Your task to perform on an android device: check the backup settings in the google photos Image 0: 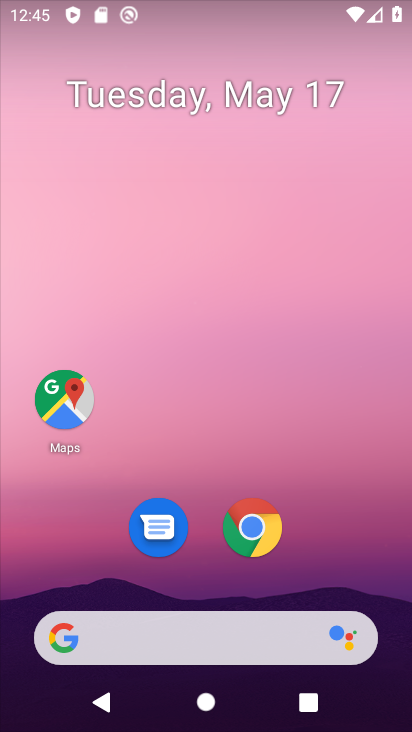
Step 0: drag from (79, 605) to (194, 149)
Your task to perform on an android device: check the backup settings in the google photos Image 1: 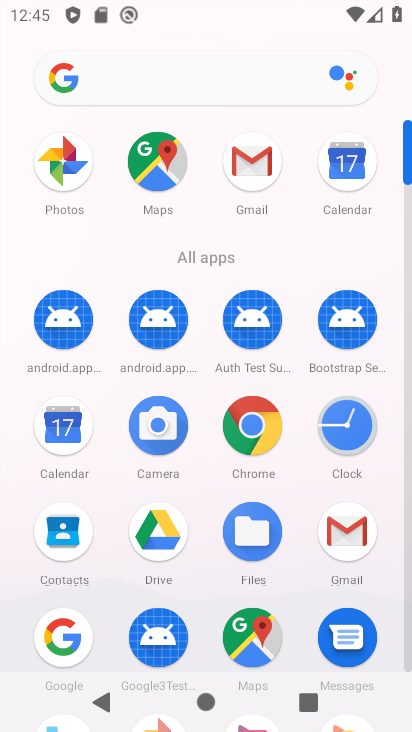
Step 1: drag from (130, 648) to (213, 419)
Your task to perform on an android device: check the backup settings in the google photos Image 2: 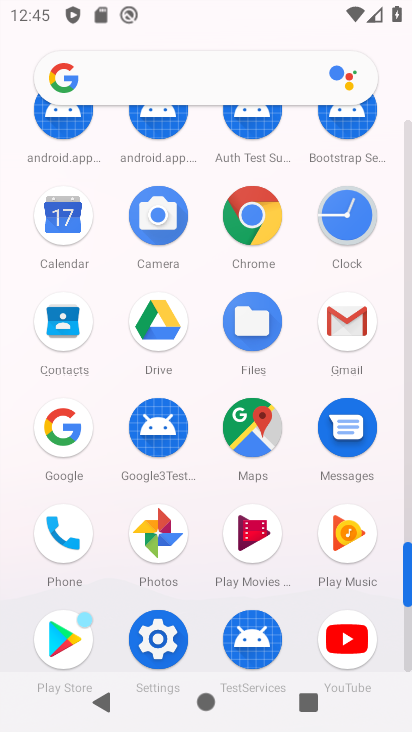
Step 2: click (146, 553)
Your task to perform on an android device: check the backup settings in the google photos Image 3: 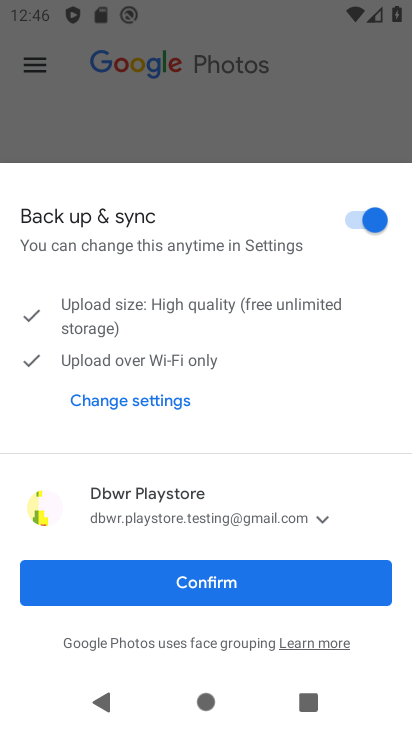
Step 3: click (257, 596)
Your task to perform on an android device: check the backup settings in the google photos Image 4: 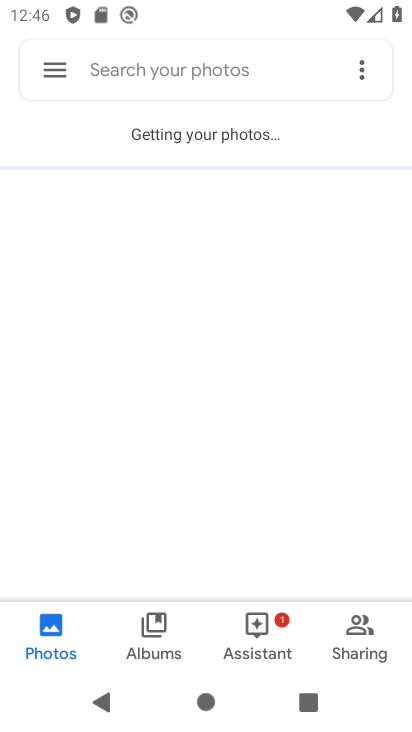
Step 4: click (59, 88)
Your task to perform on an android device: check the backup settings in the google photos Image 5: 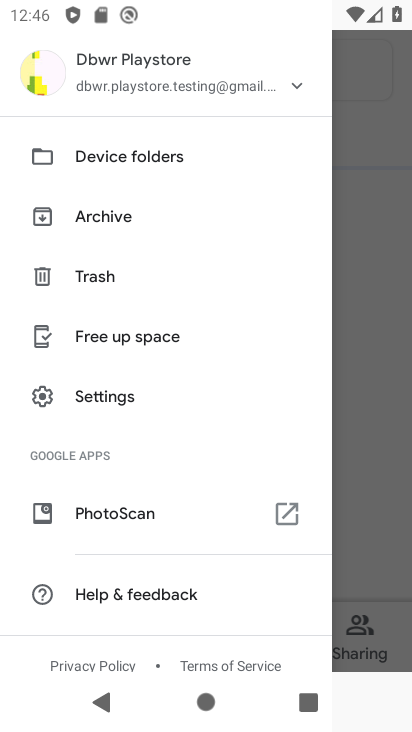
Step 5: click (140, 412)
Your task to perform on an android device: check the backup settings in the google photos Image 6: 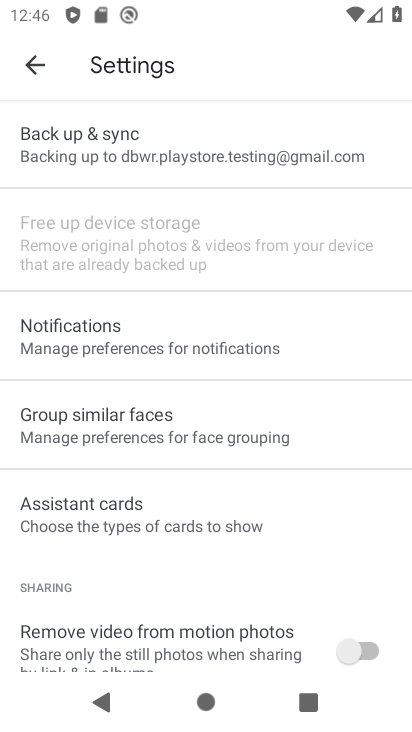
Step 6: click (216, 163)
Your task to perform on an android device: check the backup settings in the google photos Image 7: 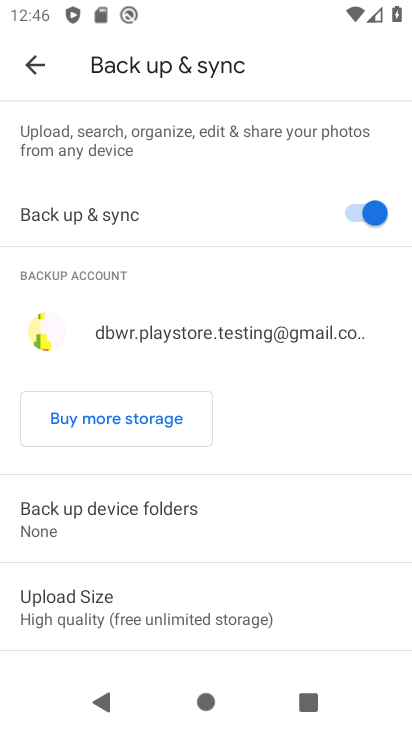
Step 7: task complete